Your task to perform on an android device: View the shopping cart on costco. Add alienware area 51 to the cart on costco, then select checkout. Image 0: 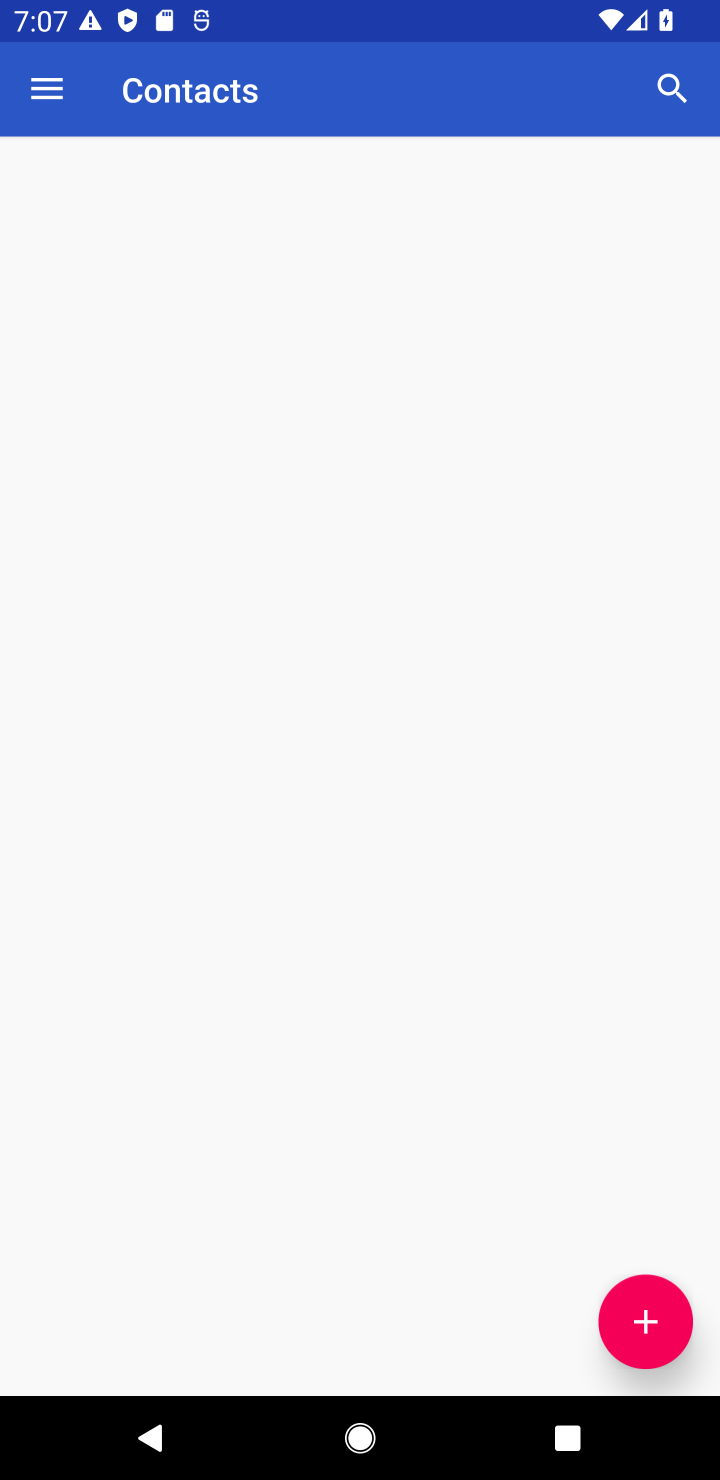
Step 0: press home button
Your task to perform on an android device: View the shopping cart on costco. Add alienware area 51 to the cart on costco, then select checkout. Image 1: 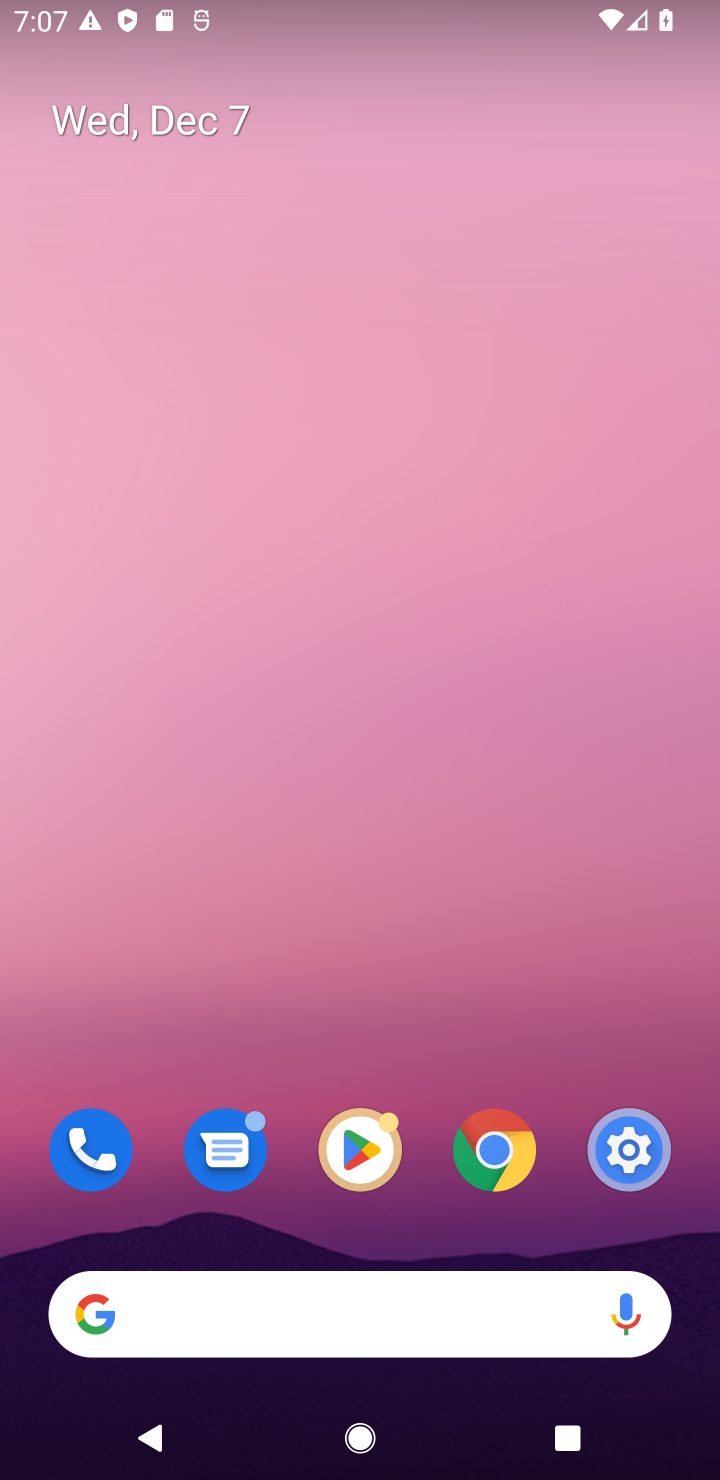
Step 1: click (487, 1144)
Your task to perform on an android device: View the shopping cart on costco. Add alienware area 51 to the cart on costco, then select checkout. Image 2: 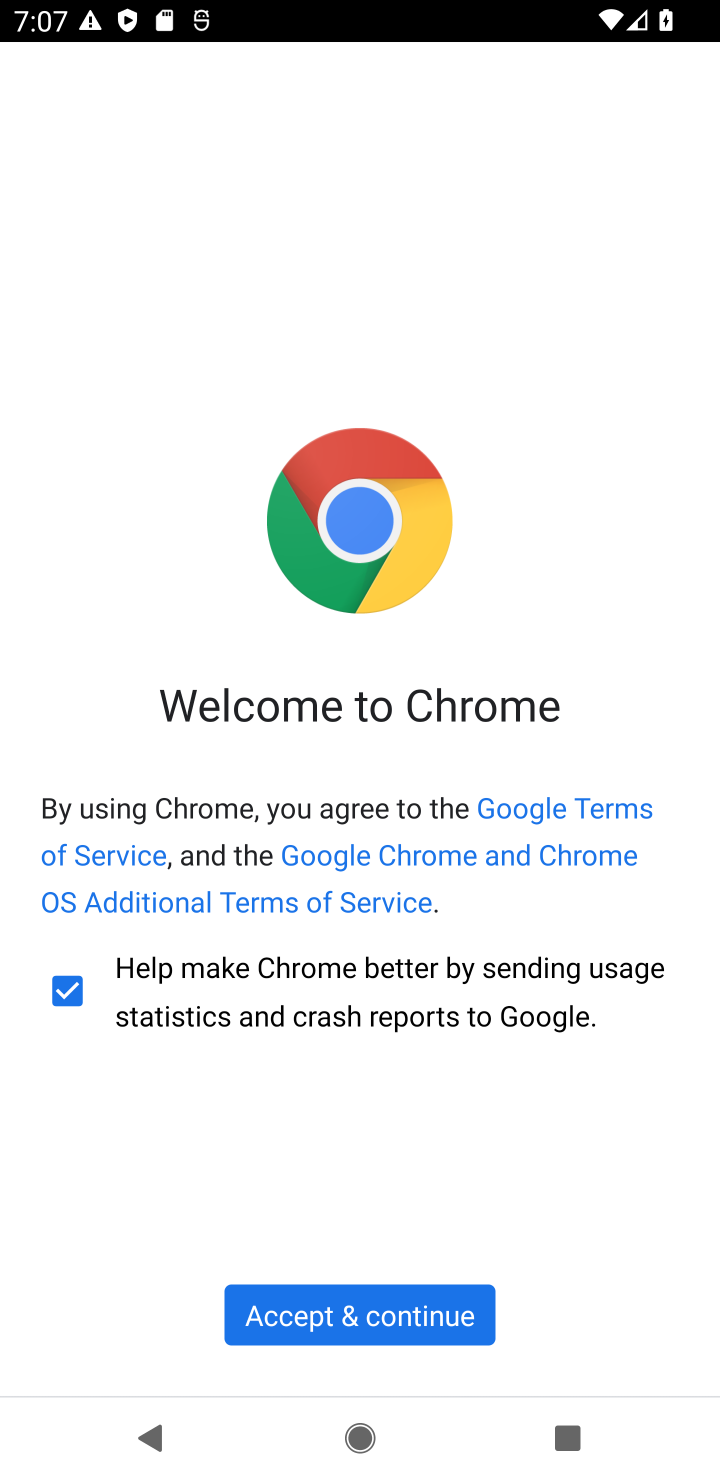
Step 2: click (359, 1311)
Your task to perform on an android device: View the shopping cart on costco. Add alienware area 51 to the cart on costco, then select checkout. Image 3: 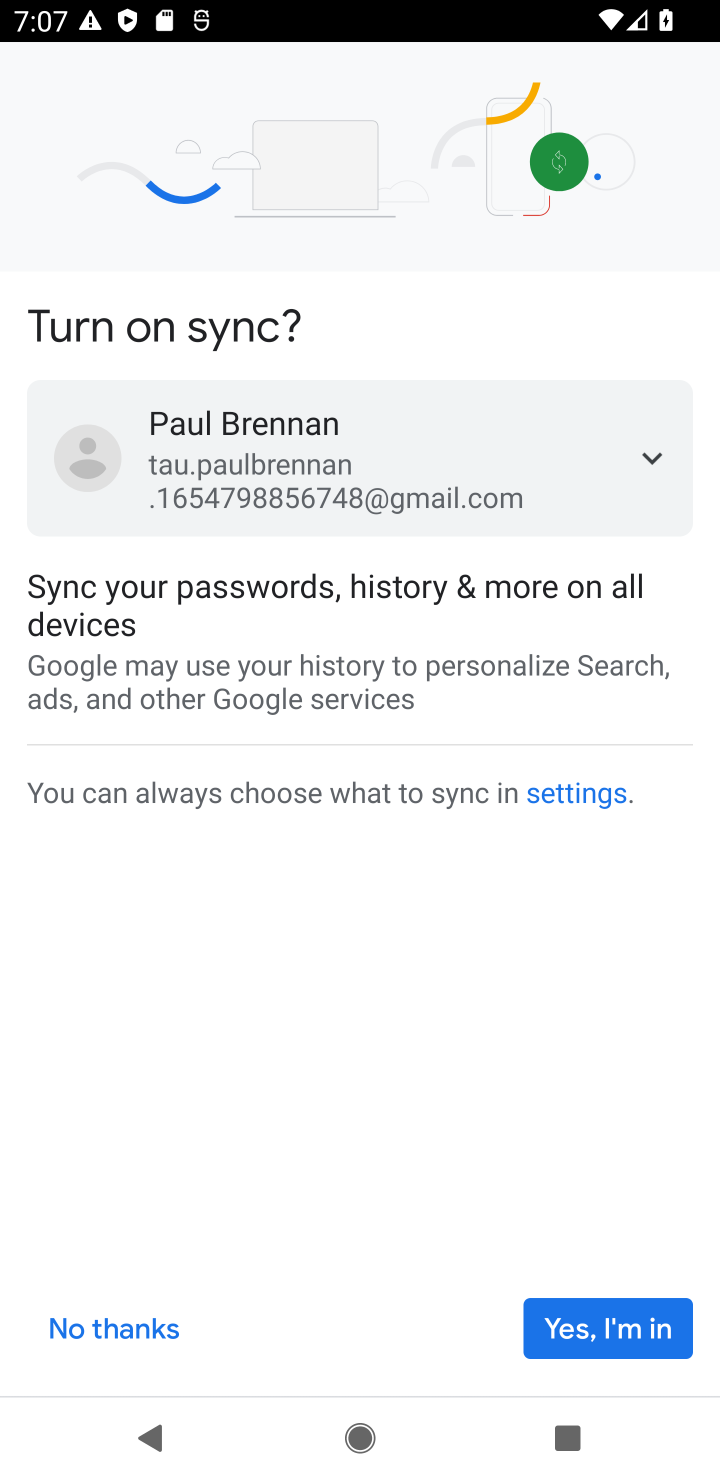
Step 3: click (607, 1338)
Your task to perform on an android device: View the shopping cart on costco. Add alienware area 51 to the cart on costco, then select checkout. Image 4: 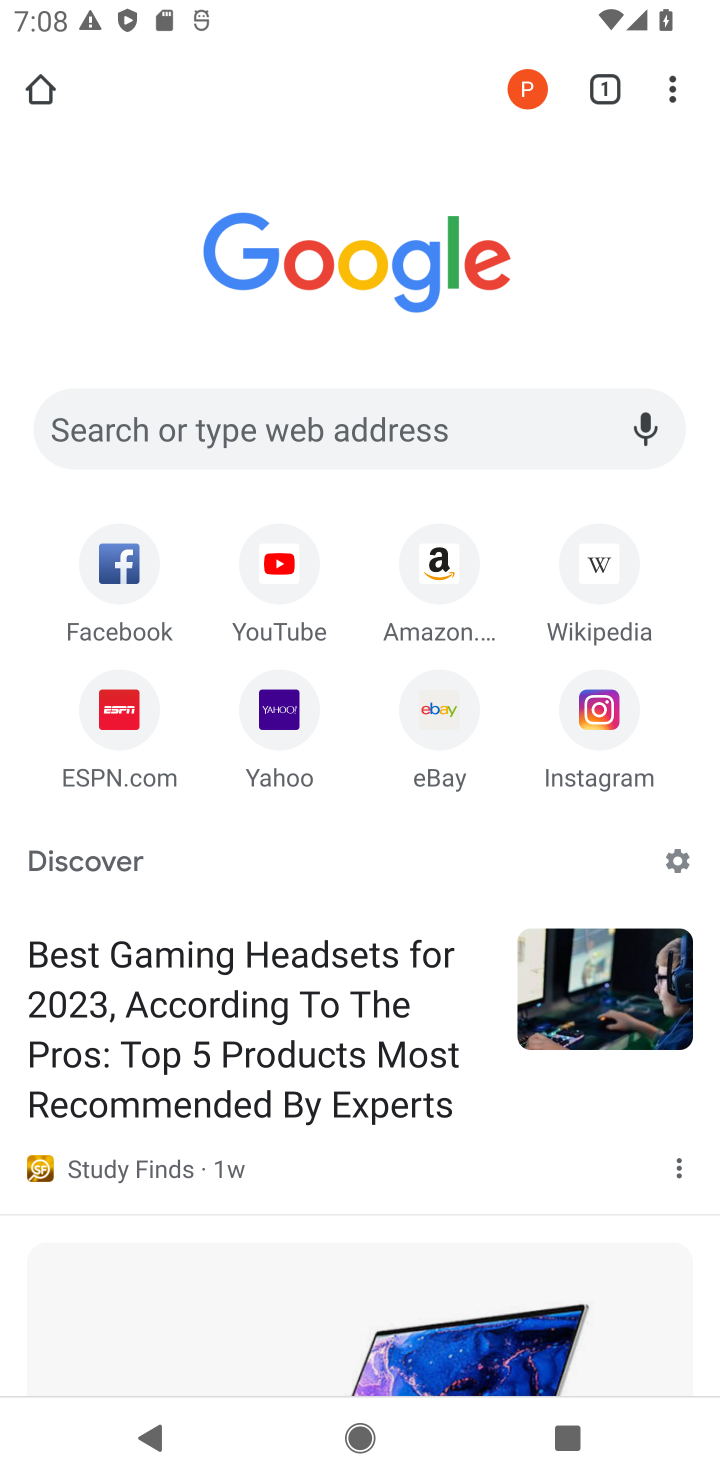
Step 4: click (352, 421)
Your task to perform on an android device: View the shopping cart on costco. Add alienware area 51 to the cart on costco, then select checkout. Image 5: 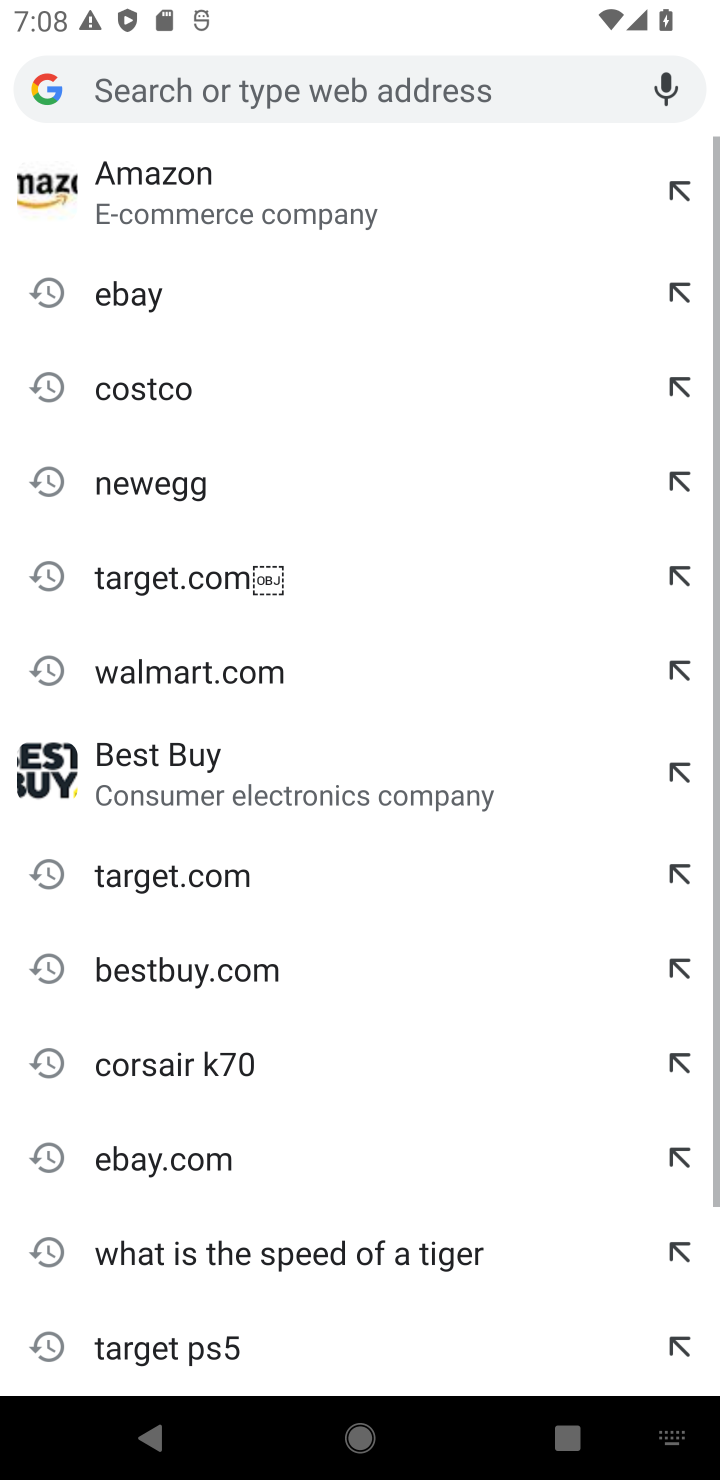
Step 5: click (130, 398)
Your task to perform on an android device: View the shopping cart on costco. Add alienware area 51 to the cart on costco, then select checkout. Image 6: 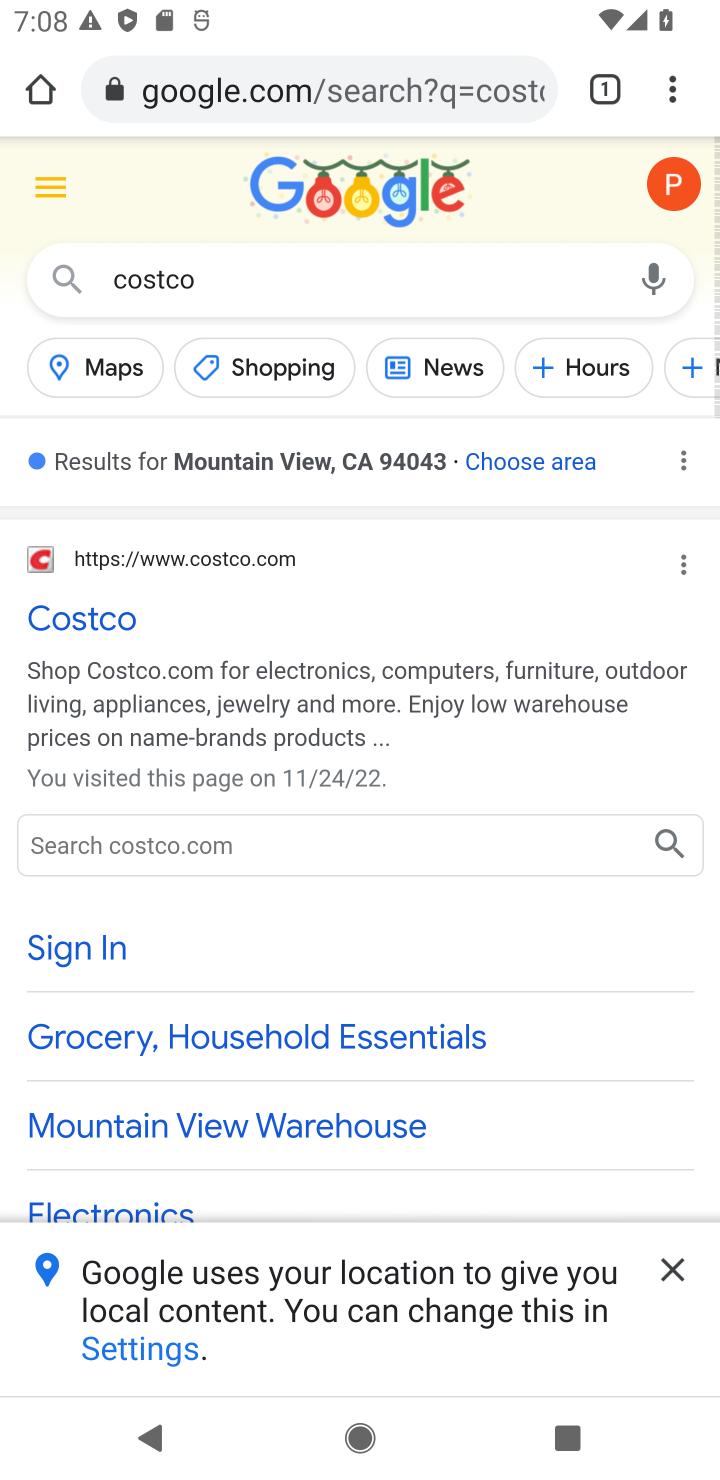
Step 6: click (659, 1266)
Your task to perform on an android device: View the shopping cart on costco. Add alienware area 51 to the cart on costco, then select checkout. Image 7: 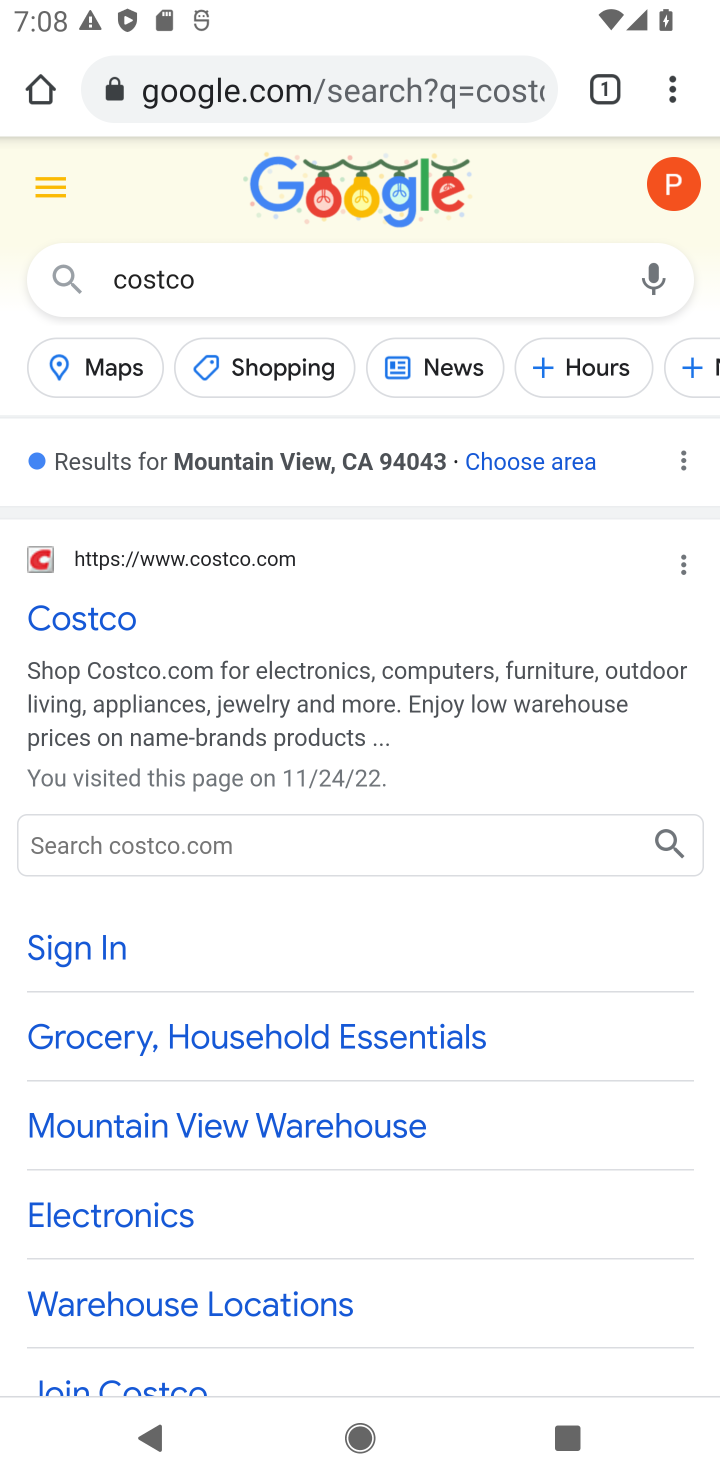
Step 7: click (95, 619)
Your task to perform on an android device: View the shopping cart on costco. Add alienware area 51 to the cart on costco, then select checkout. Image 8: 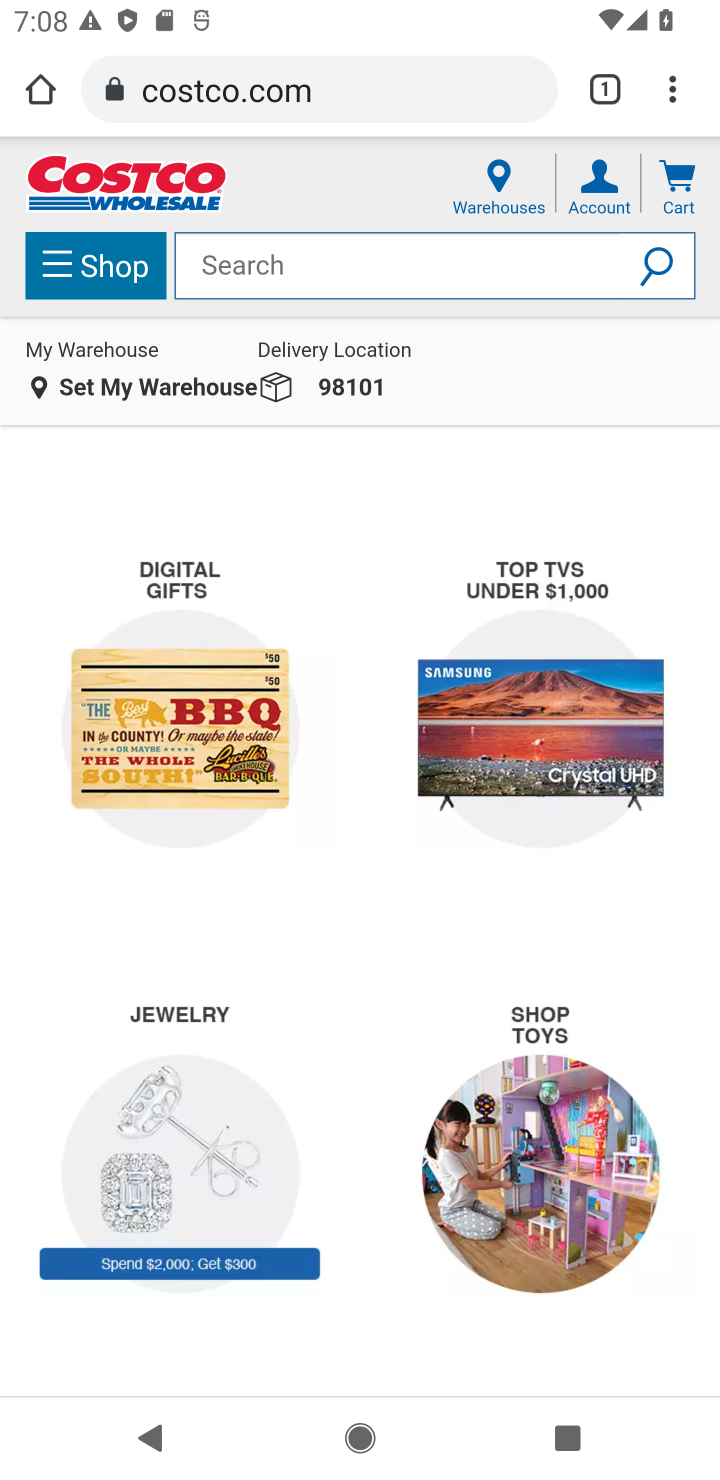
Step 8: click (358, 240)
Your task to perform on an android device: View the shopping cart on costco. Add alienware area 51 to the cart on costco, then select checkout. Image 9: 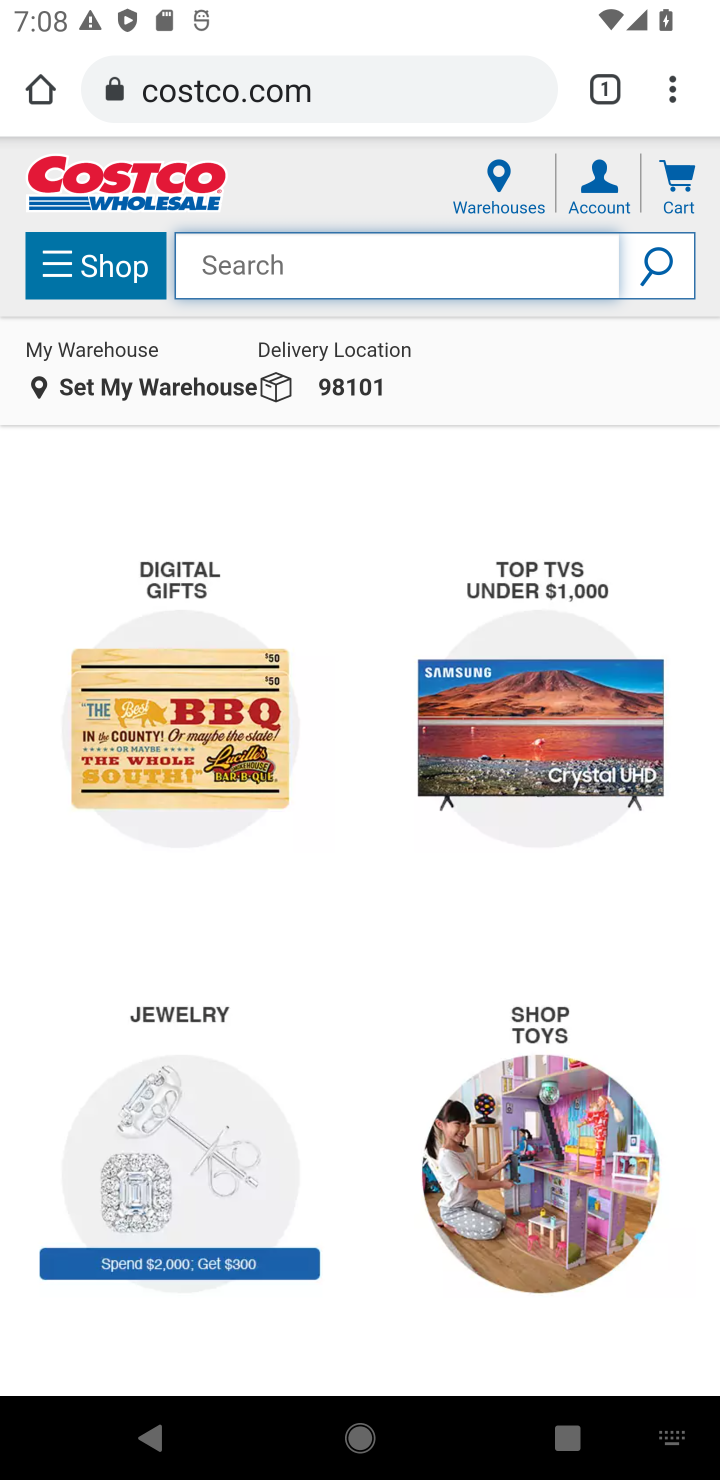
Step 9: type "alienware area 51"
Your task to perform on an android device: View the shopping cart on costco. Add alienware area 51 to the cart on costco, then select checkout. Image 10: 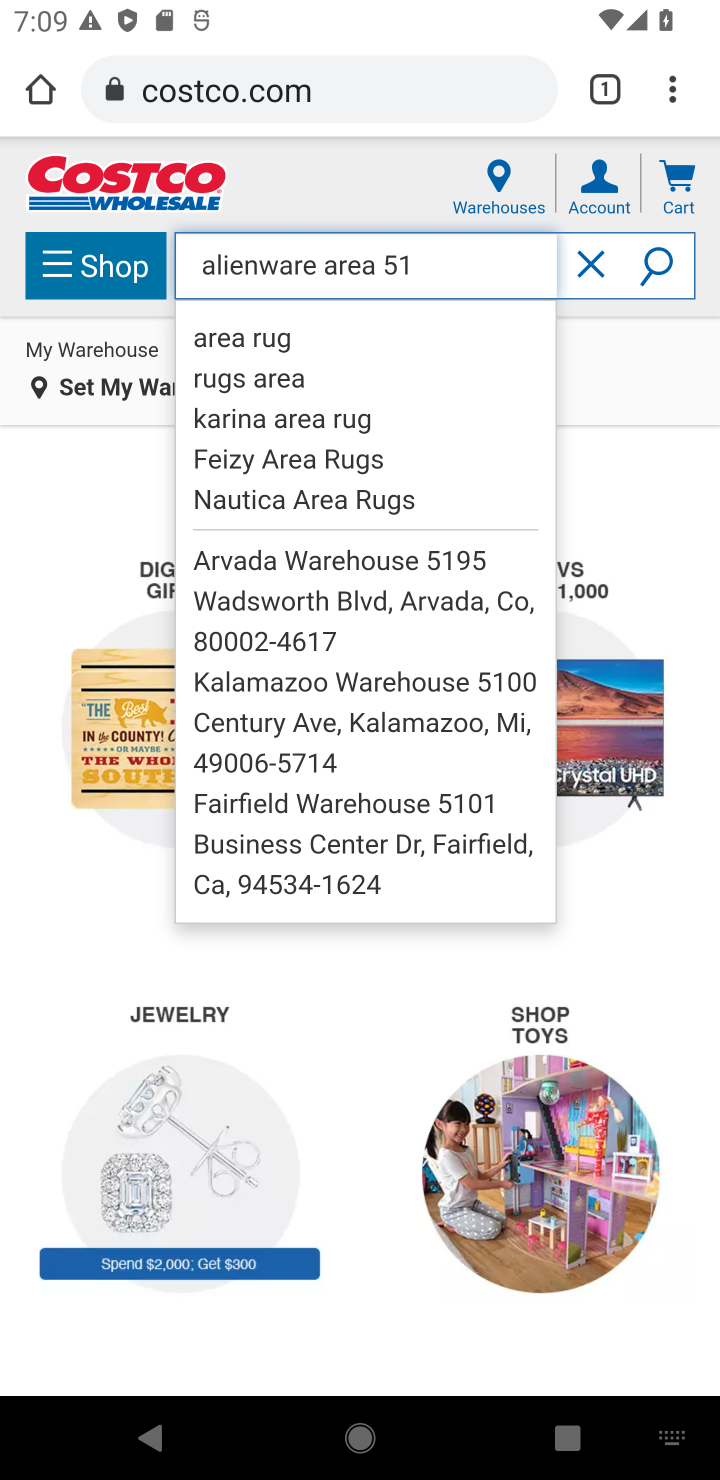
Step 10: click (287, 349)
Your task to perform on an android device: View the shopping cart on costco. Add alienware area 51 to the cart on costco, then select checkout. Image 11: 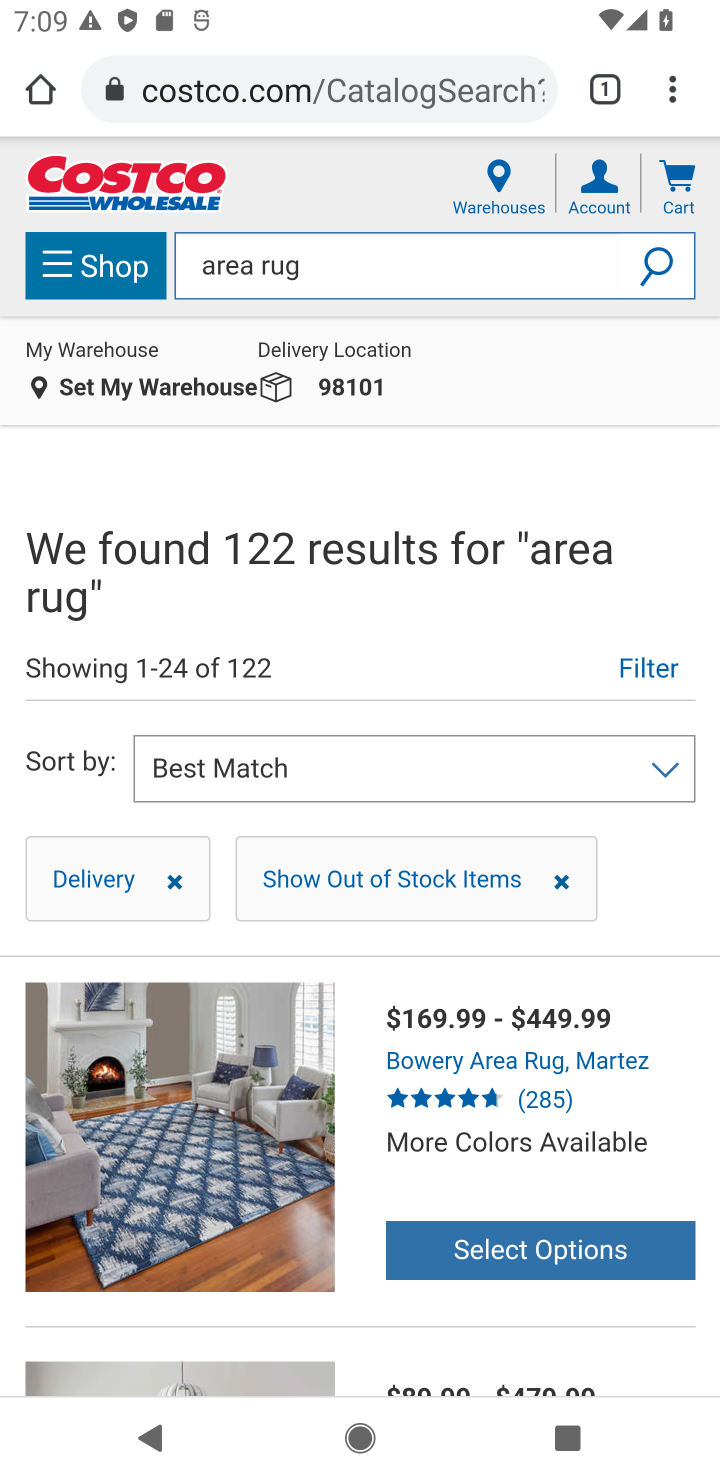
Step 11: click (200, 1100)
Your task to perform on an android device: View the shopping cart on costco. Add alienware area 51 to the cart on costco, then select checkout. Image 12: 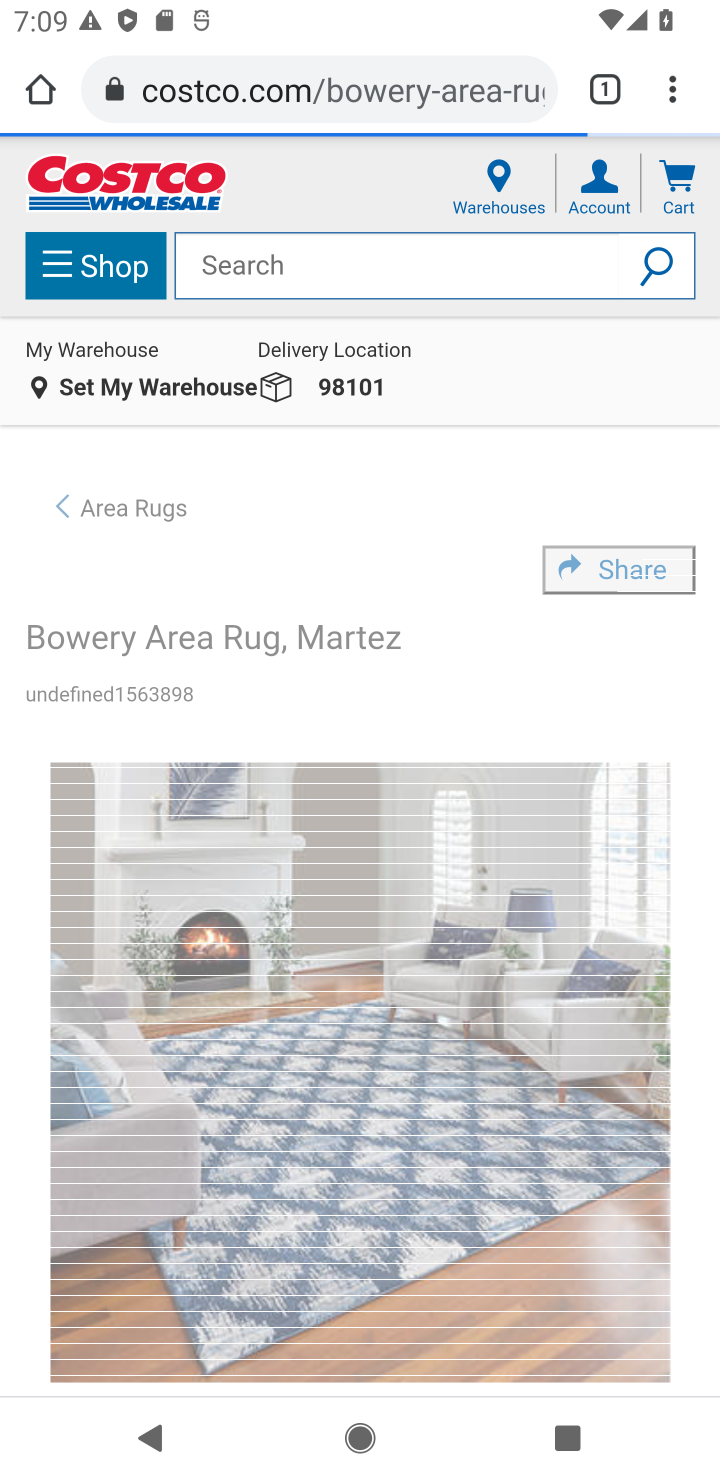
Step 12: drag from (437, 1231) to (448, 370)
Your task to perform on an android device: View the shopping cart on costco. Add alienware area 51 to the cart on costco, then select checkout. Image 13: 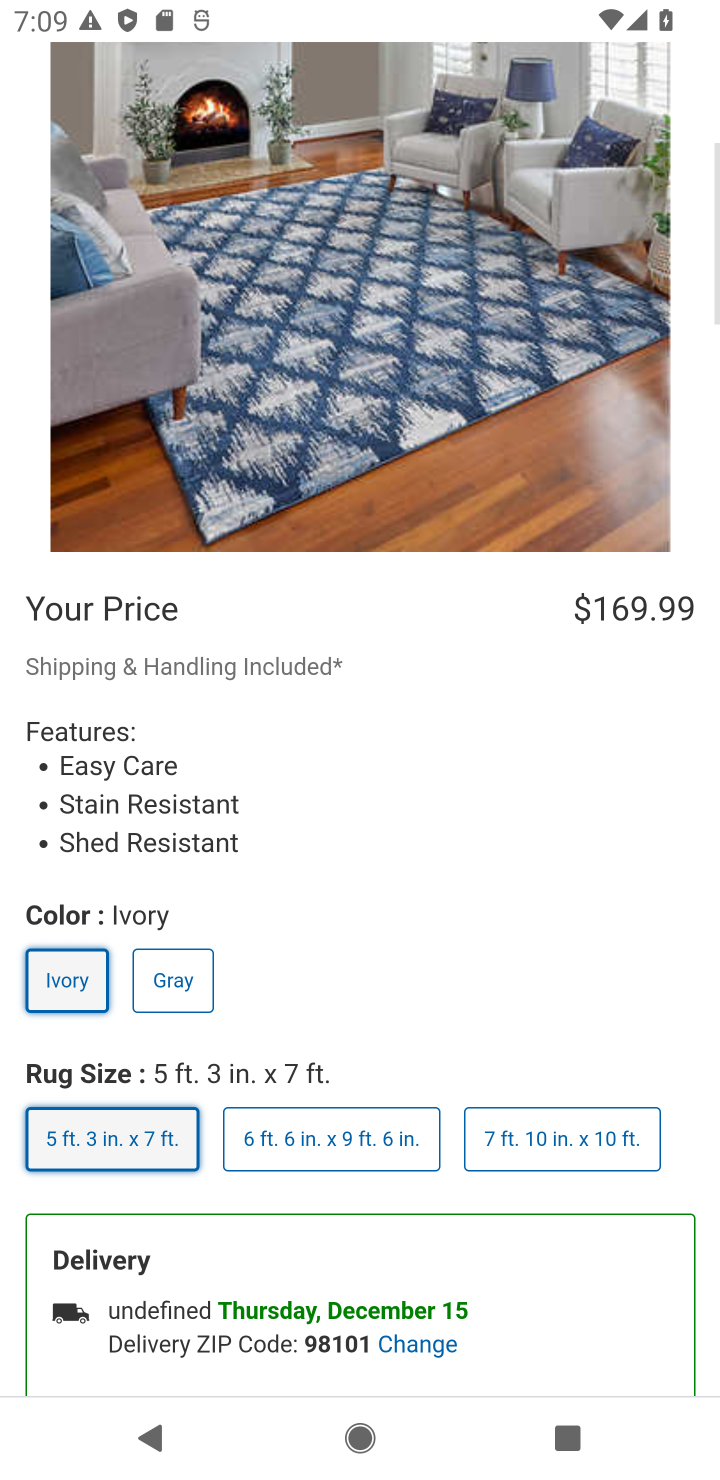
Step 13: drag from (461, 1264) to (469, 284)
Your task to perform on an android device: View the shopping cart on costco. Add alienware area 51 to the cart on costco, then select checkout. Image 14: 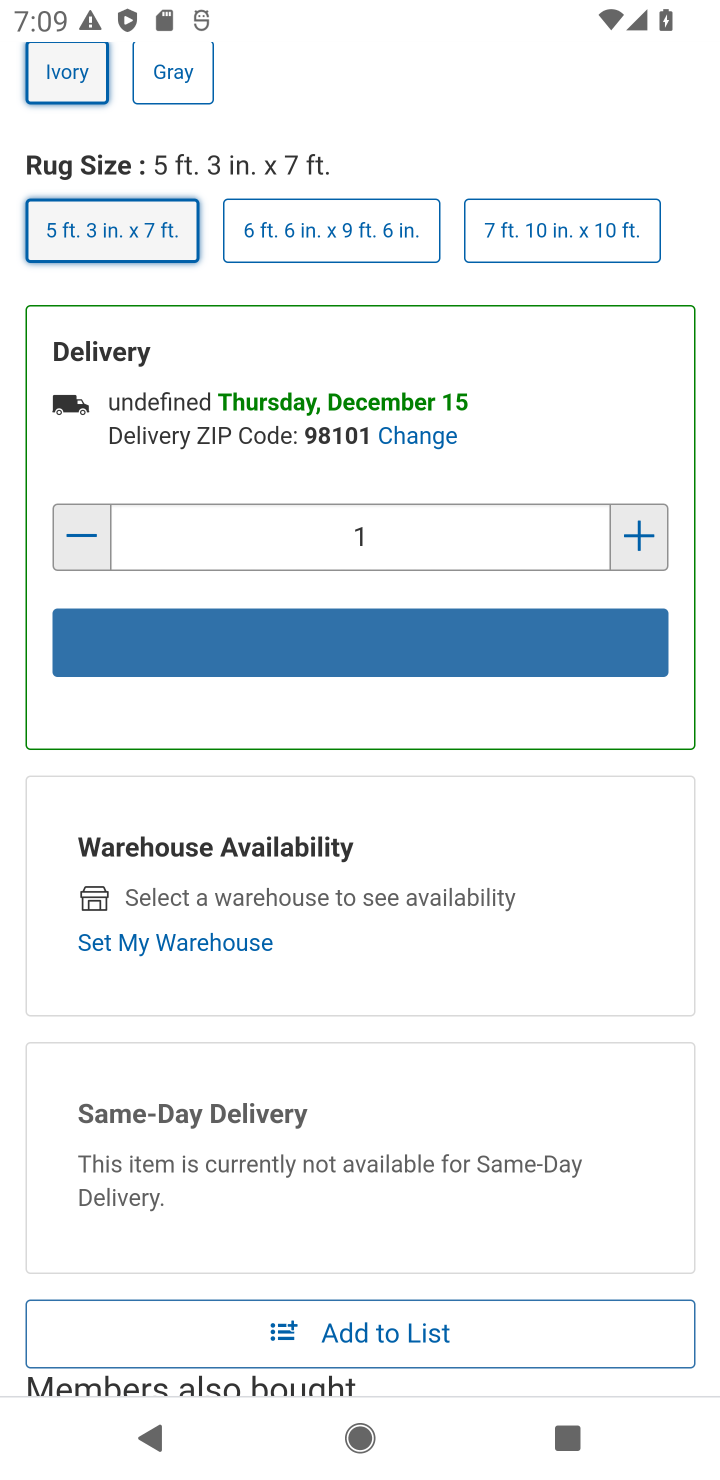
Step 14: click (368, 649)
Your task to perform on an android device: View the shopping cart on costco. Add alienware area 51 to the cart on costco, then select checkout. Image 15: 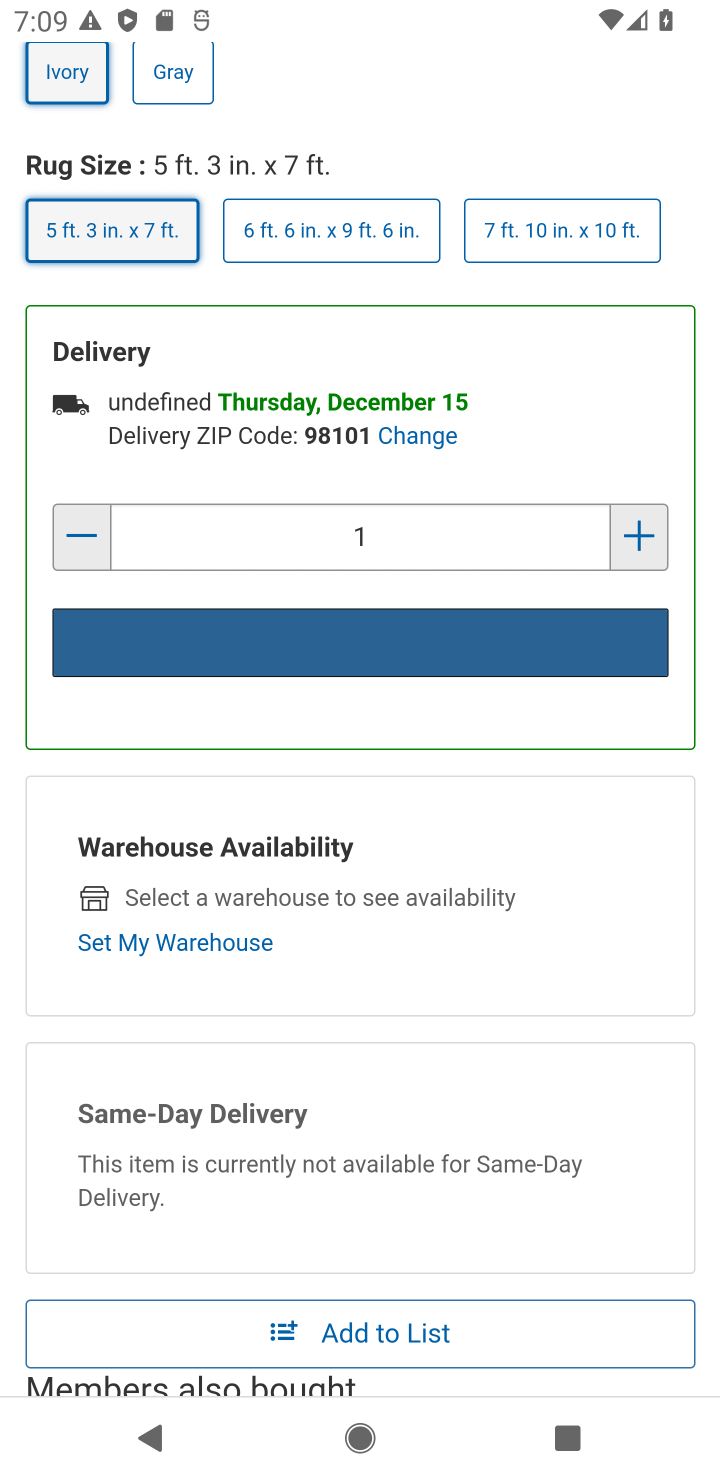
Step 15: task complete